Your task to perform on an android device: turn smart compose on in the gmail app Image 0: 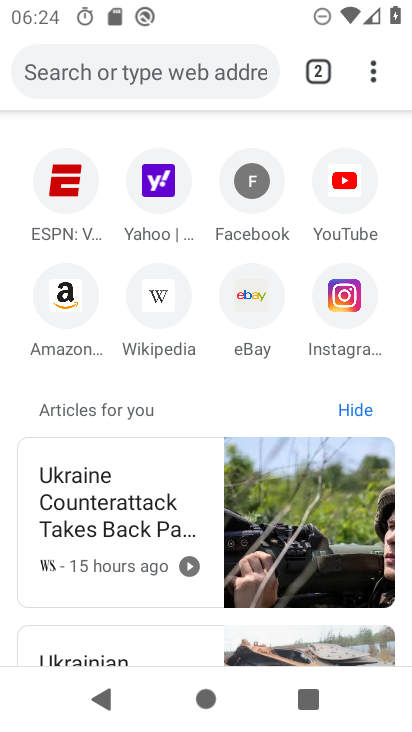
Step 0: press home button
Your task to perform on an android device: turn smart compose on in the gmail app Image 1: 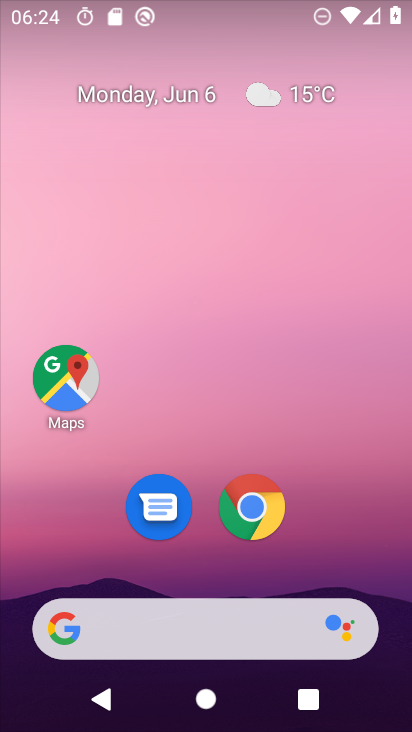
Step 1: drag from (221, 549) to (196, 30)
Your task to perform on an android device: turn smart compose on in the gmail app Image 2: 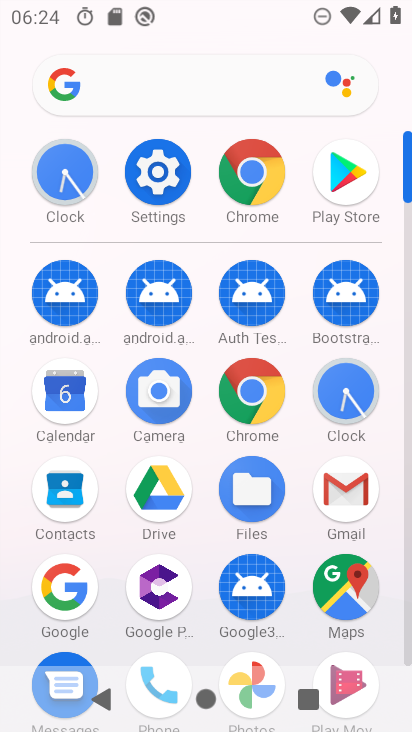
Step 2: click (346, 506)
Your task to perform on an android device: turn smart compose on in the gmail app Image 3: 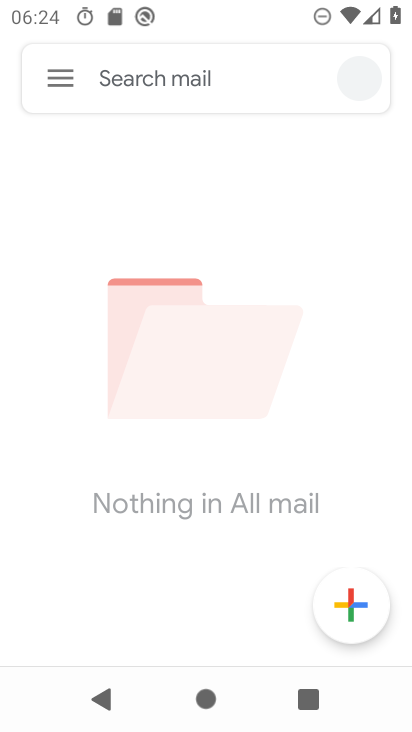
Step 3: click (58, 82)
Your task to perform on an android device: turn smart compose on in the gmail app Image 4: 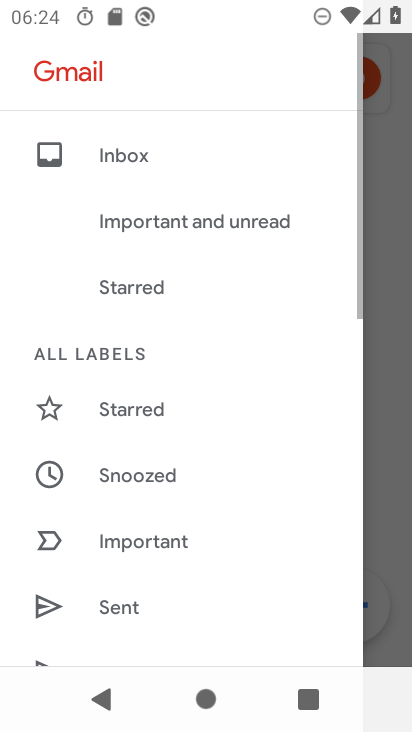
Step 4: drag from (139, 639) to (119, 73)
Your task to perform on an android device: turn smart compose on in the gmail app Image 5: 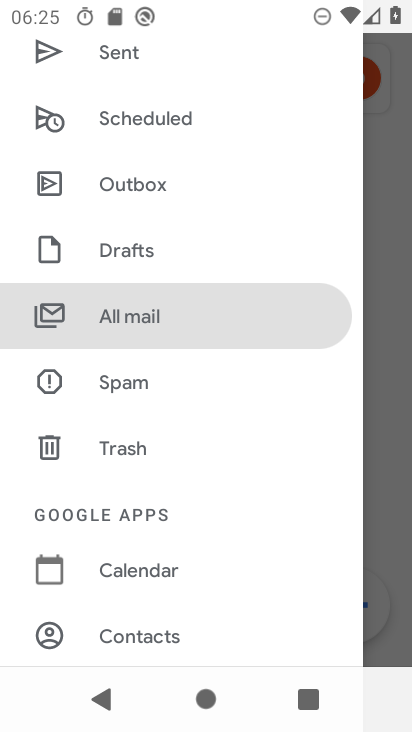
Step 5: drag from (118, 570) to (121, 60)
Your task to perform on an android device: turn smart compose on in the gmail app Image 6: 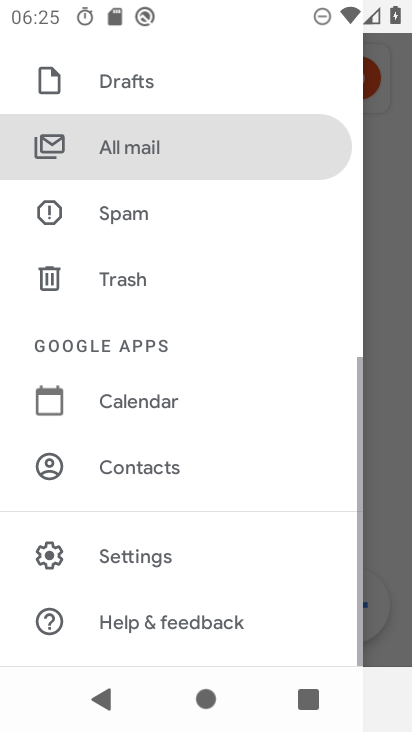
Step 6: click (125, 549)
Your task to perform on an android device: turn smart compose on in the gmail app Image 7: 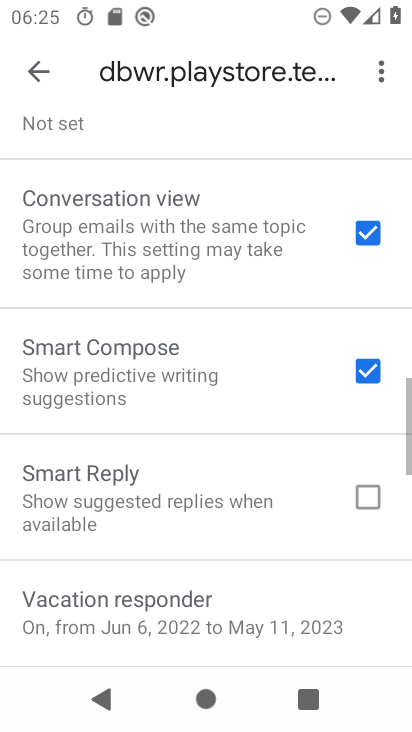
Step 7: task complete